Your task to perform on an android device: Open Chrome and go to settings Image 0: 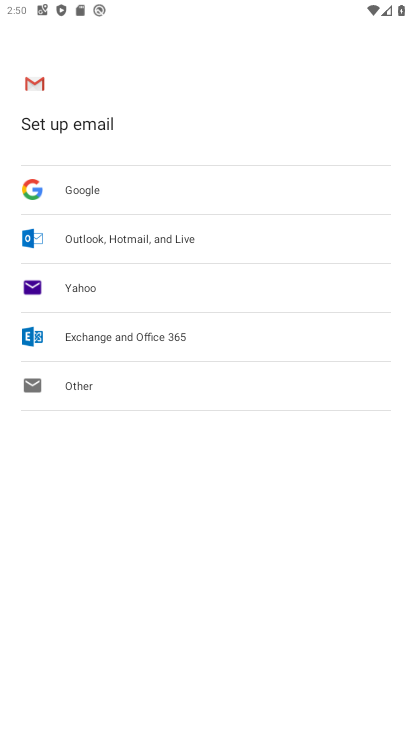
Step 0: press home button
Your task to perform on an android device: Open Chrome and go to settings Image 1: 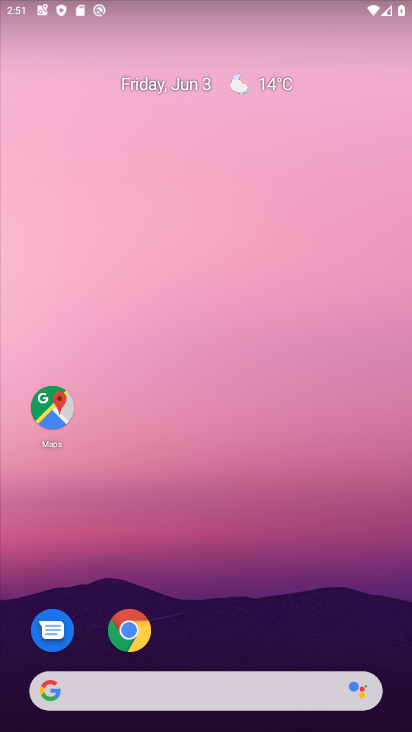
Step 1: click (124, 632)
Your task to perform on an android device: Open Chrome and go to settings Image 2: 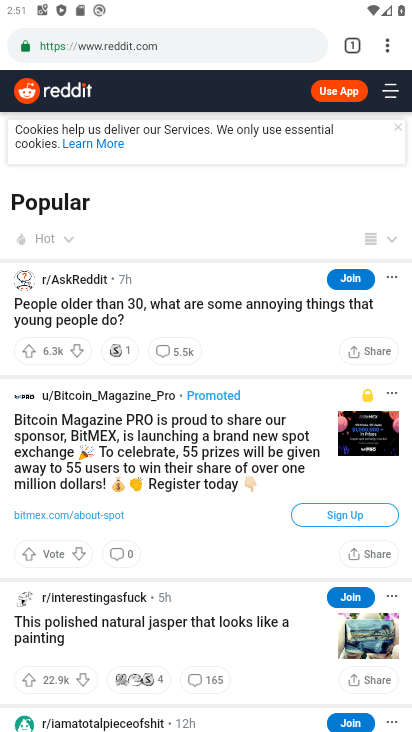
Step 2: click (385, 46)
Your task to perform on an android device: Open Chrome and go to settings Image 3: 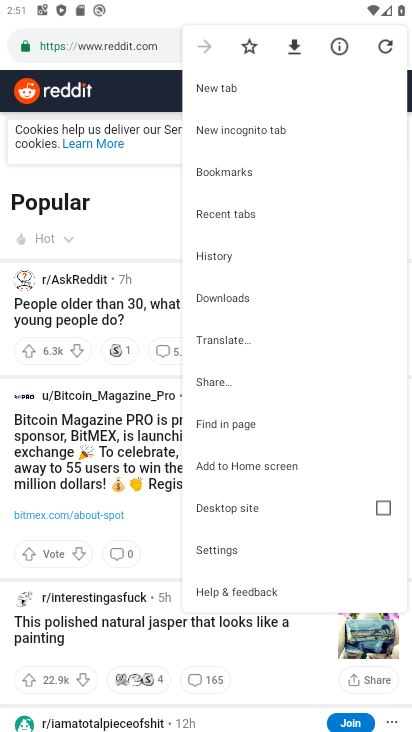
Step 3: click (318, 561)
Your task to perform on an android device: Open Chrome and go to settings Image 4: 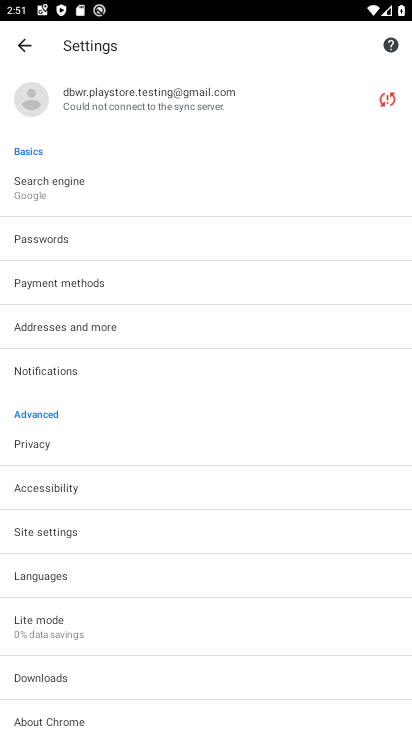
Step 4: task complete